Your task to perform on an android device: turn notification dots on Image 0: 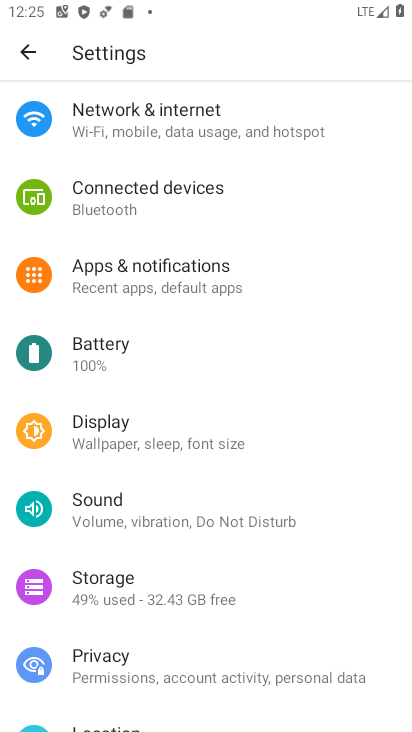
Step 0: click (122, 276)
Your task to perform on an android device: turn notification dots on Image 1: 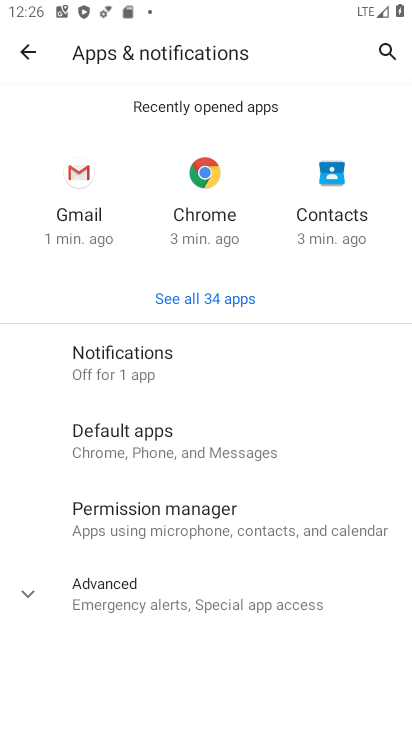
Step 1: click (142, 368)
Your task to perform on an android device: turn notification dots on Image 2: 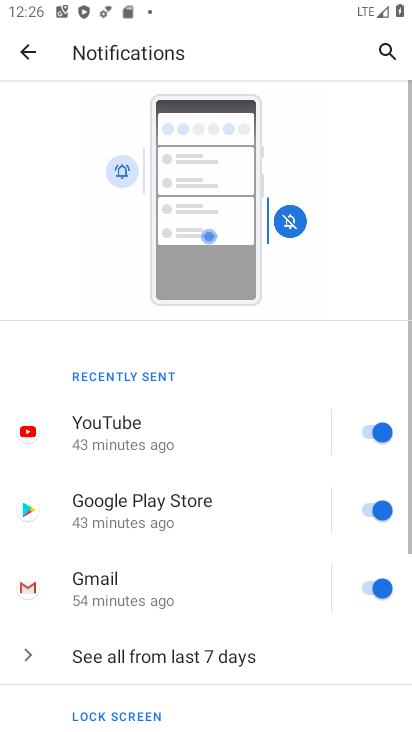
Step 2: drag from (223, 612) to (236, 356)
Your task to perform on an android device: turn notification dots on Image 3: 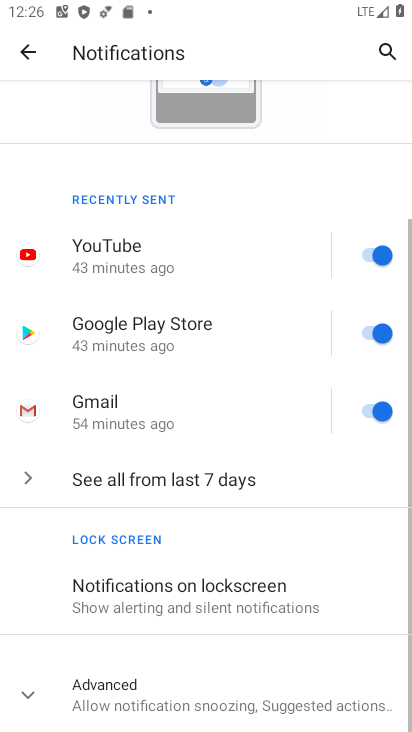
Step 3: drag from (251, 628) to (257, 385)
Your task to perform on an android device: turn notification dots on Image 4: 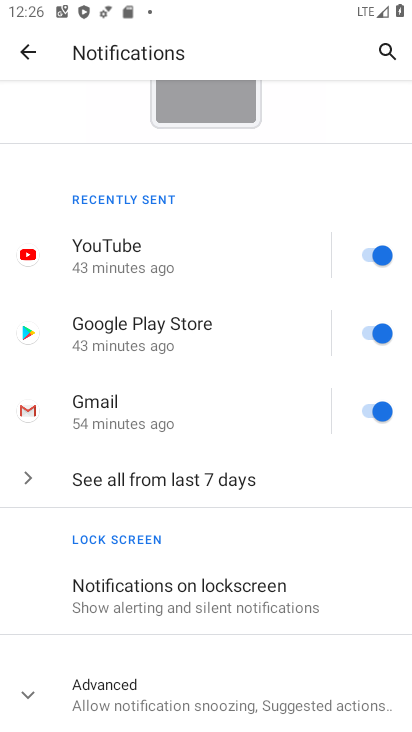
Step 4: drag from (217, 638) to (241, 436)
Your task to perform on an android device: turn notification dots on Image 5: 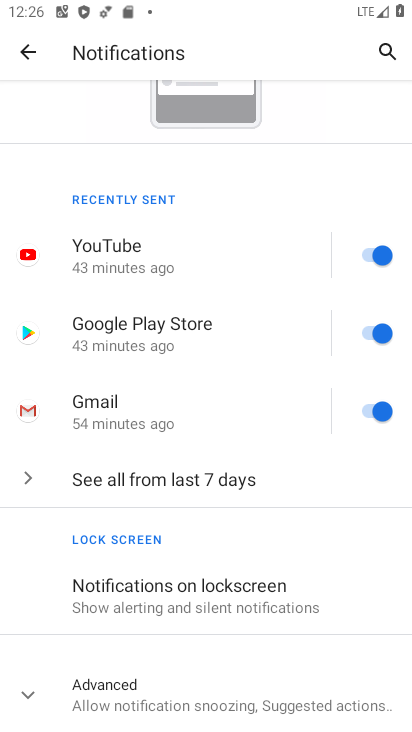
Step 5: click (220, 688)
Your task to perform on an android device: turn notification dots on Image 6: 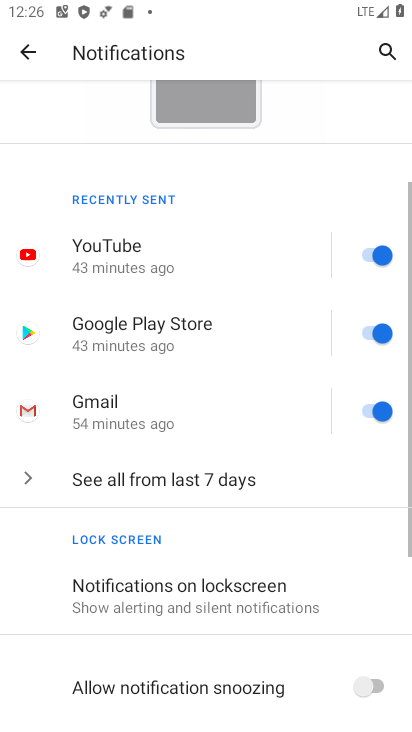
Step 6: task complete